Your task to perform on an android device: turn on sleep mode Image 0: 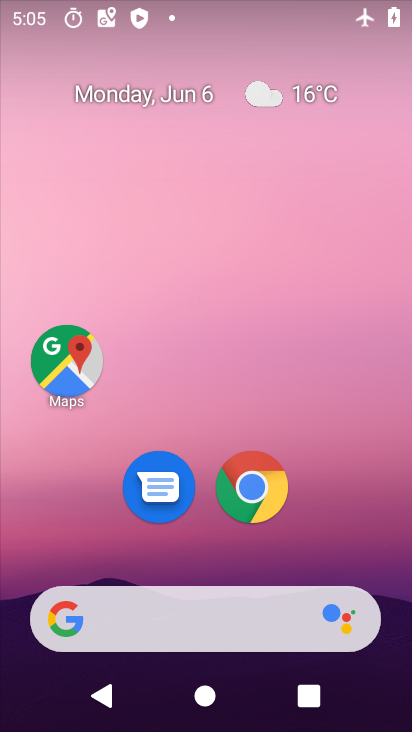
Step 0: drag from (332, 491) to (280, 67)
Your task to perform on an android device: turn on sleep mode Image 1: 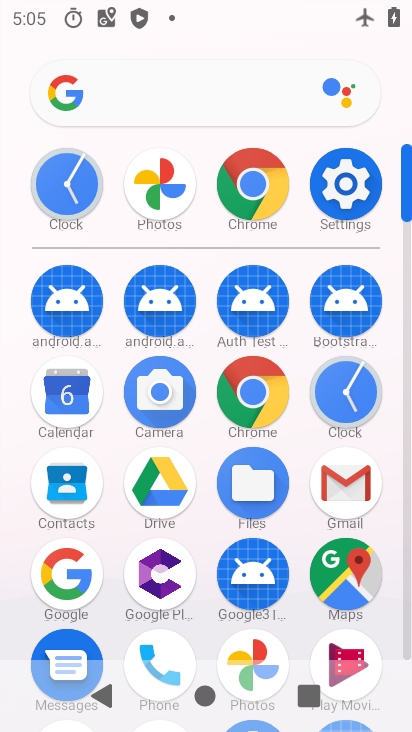
Step 1: click (361, 183)
Your task to perform on an android device: turn on sleep mode Image 2: 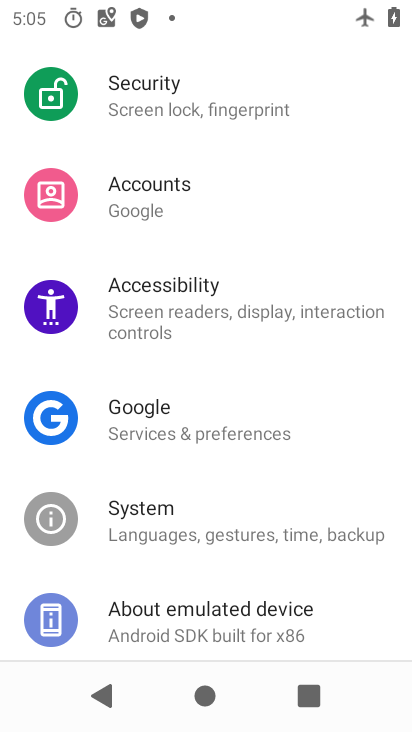
Step 2: drag from (205, 186) to (187, 628)
Your task to perform on an android device: turn on sleep mode Image 3: 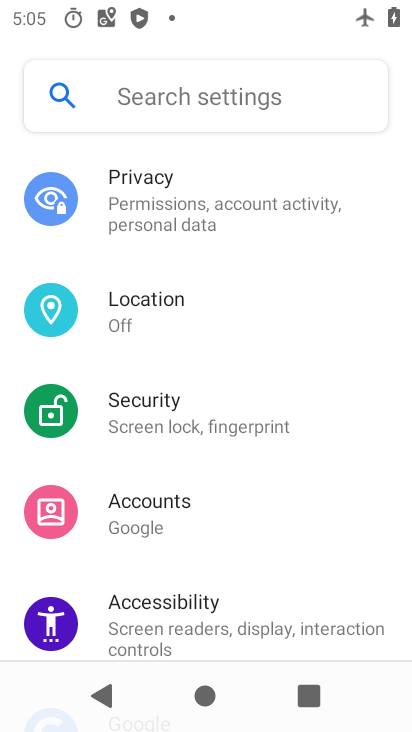
Step 3: drag from (217, 238) to (242, 668)
Your task to perform on an android device: turn on sleep mode Image 4: 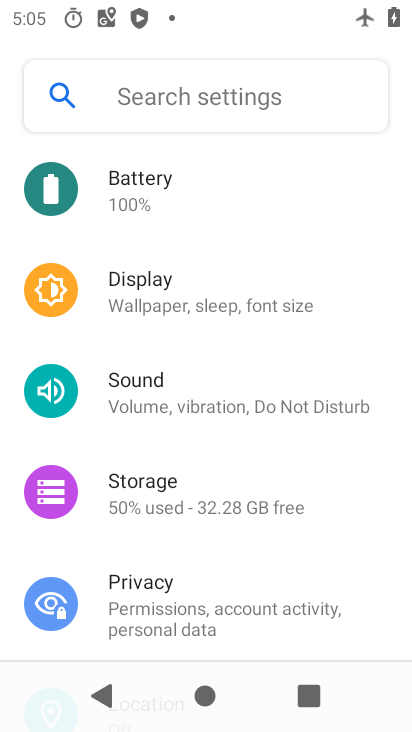
Step 4: click (189, 321)
Your task to perform on an android device: turn on sleep mode Image 5: 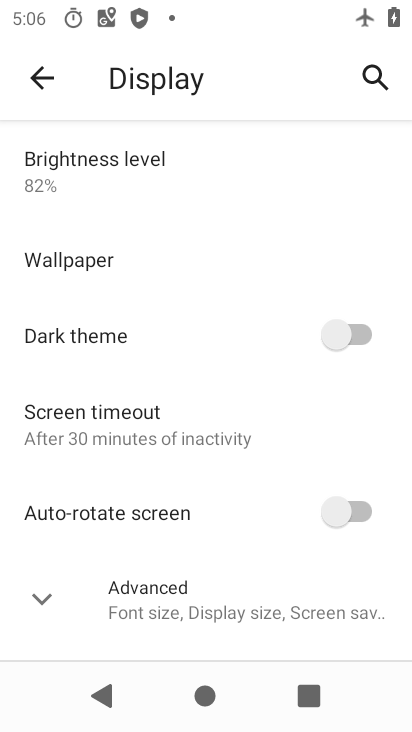
Step 5: task complete